Your task to perform on an android device: open app "Google Keep" (install if not already installed) Image 0: 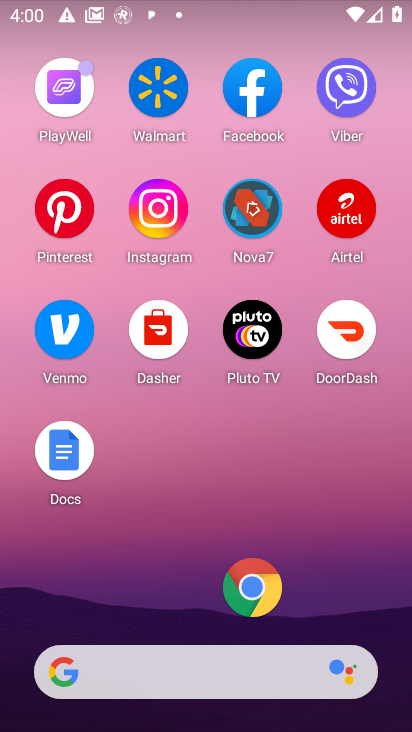
Step 0: drag from (143, 612) to (269, 214)
Your task to perform on an android device: open app "Google Keep" (install if not already installed) Image 1: 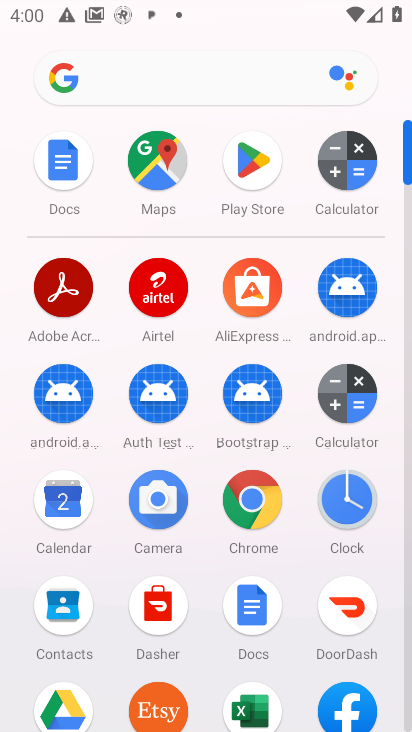
Step 1: click (268, 149)
Your task to perform on an android device: open app "Google Keep" (install if not already installed) Image 2: 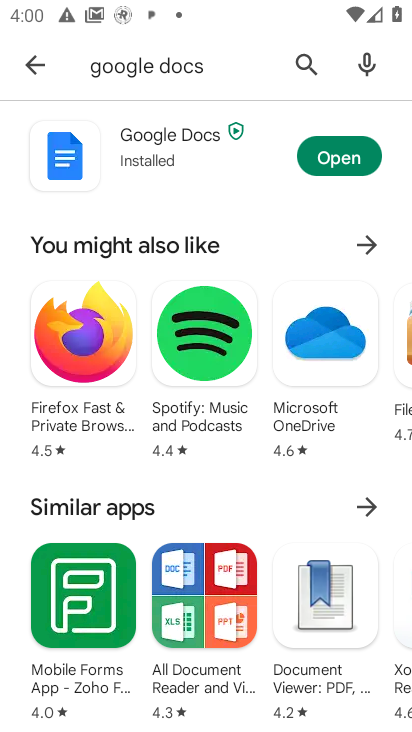
Step 2: click (318, 71)
Your task to perform on an android device: open app "Google Keep" (install if not already installed) Image 3: 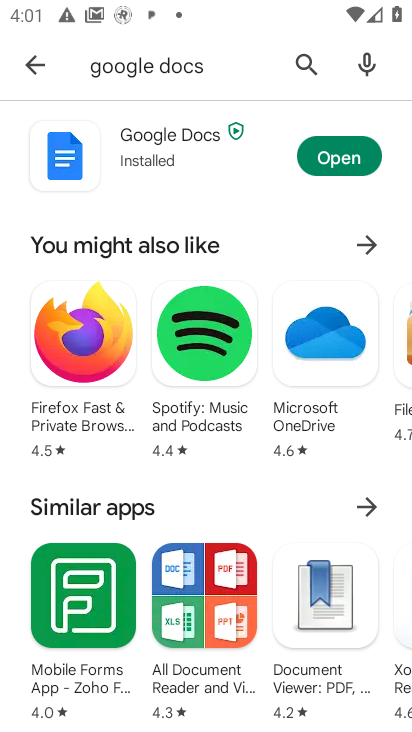
Step 3: click (306, 76)
Your task to perform on an android device: open app "Google Keep" (install if not already installed) Image 4: 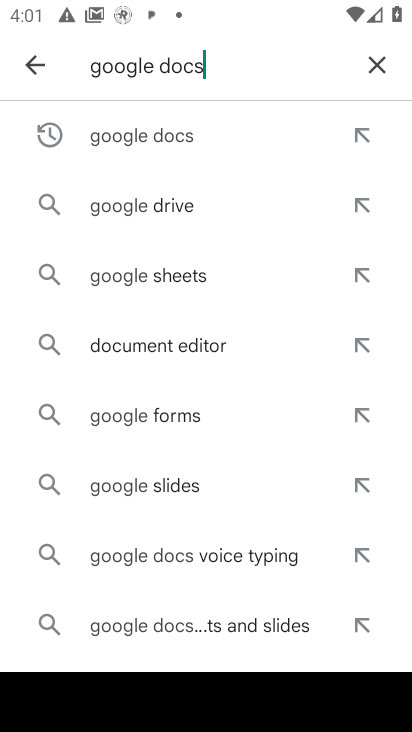
Step 4: click (368, 73)
Your task to perform on an android device: open app "Google Keep" (install if not already installed) Image 5: 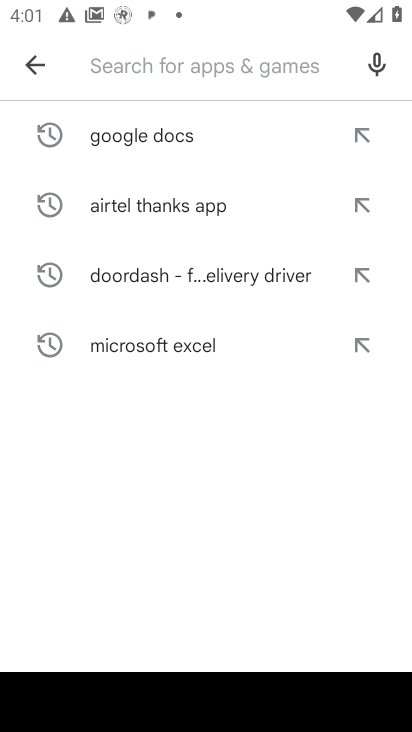
Step 5: type "Google Keep"
Your task to perform on an android device: open app "Google Keep" (install if not already installed) Image 6: 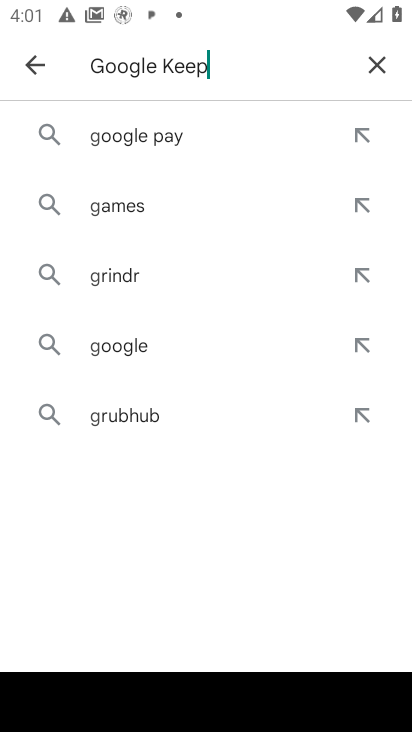
Step 6: type ""
Your task to perform on an android device: open app "Google Keep" (install if not already installed) Image 7: 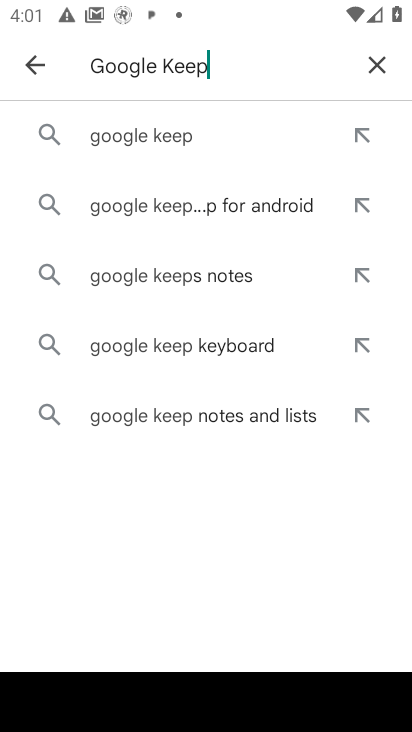
Step 7: click (157, 126)
Your task to perform on an android device: open app "Google Keep" (install if not already installed) Image 8: 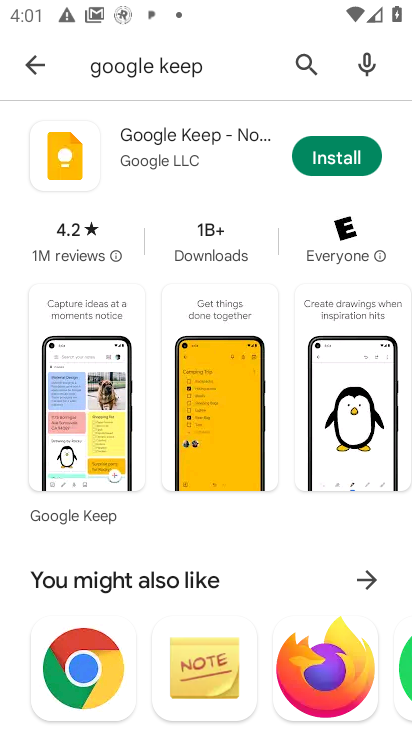
Step 8: click (352, 155)
Your task to perform on an android device: open app "Google Keep" (install if not already installed) Image 9: 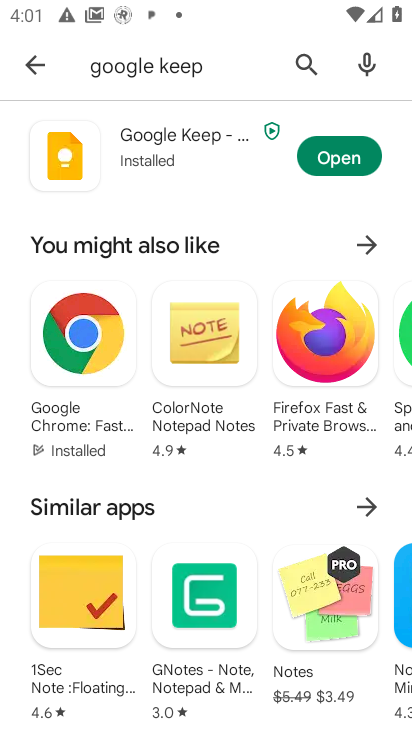
Step 9: click (352, 155)
Your task to perform on an android device: open app "Google Keep" (install if not already installed) Image 10: 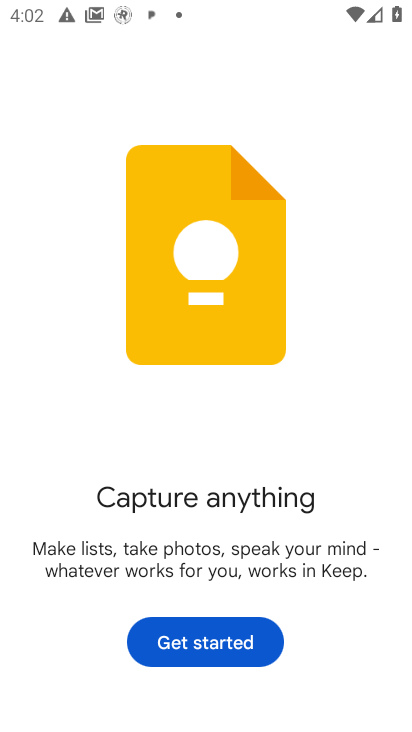
Step 10: task complete